Your task to perform on an android device: Search for Mexican restaurants on Maps Image 0: 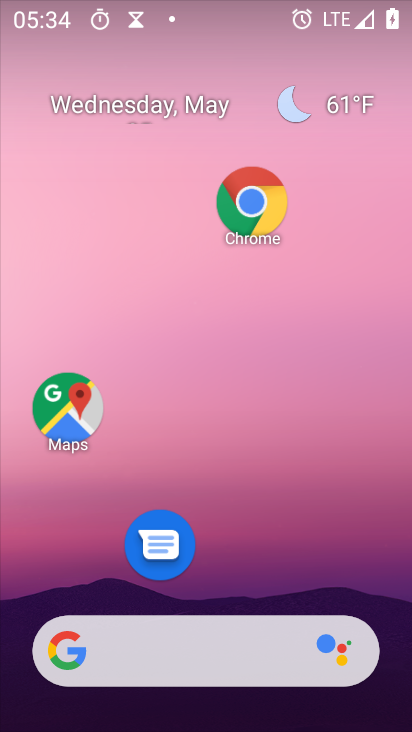
Step 0: click (73, 415)
Your task to perform on an android device: Search for Mexican restaurants on Maps Image 1: 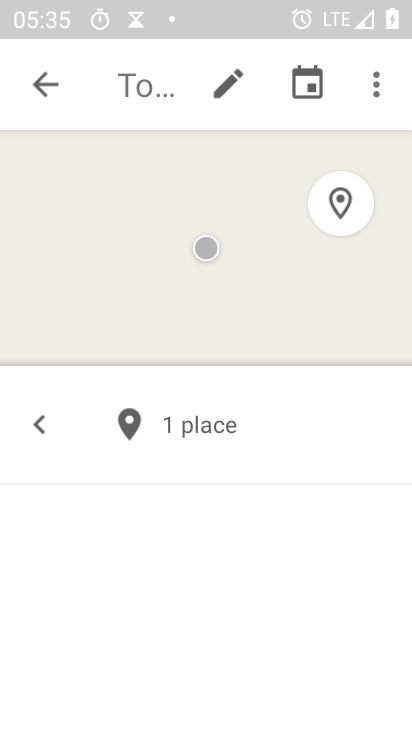
Step 1: click (52, 82)
Your task to perform on an android device: Search for Mexican restaurants on Maps Image 2: 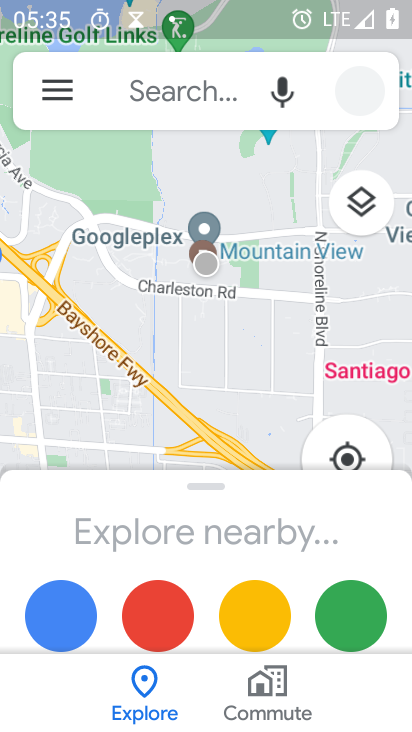
Step 2: click (164, 100)
Your task to perform on an android device: Search for Mexican restaurants on Maps Image 3: 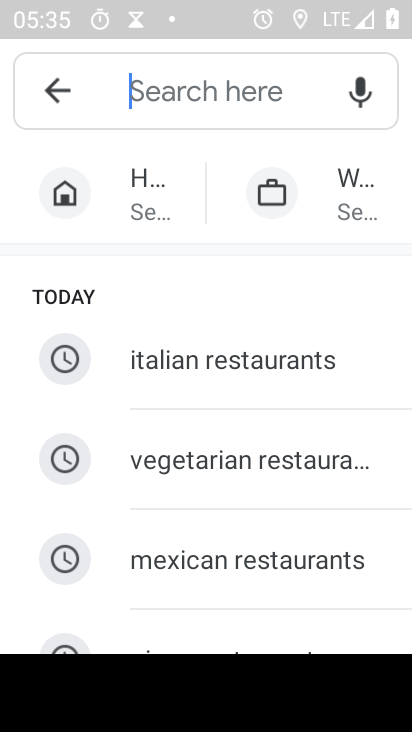
Step 3: type "mexican restaurants"
Your task to perform on an android device: Search for Mexican restaurants on Maps Image 4: 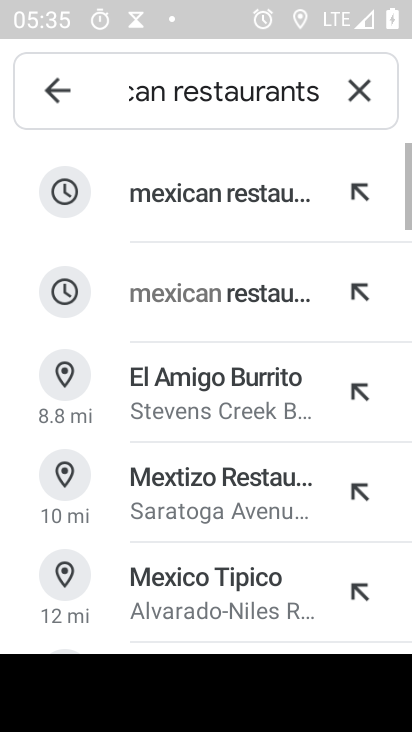
Step 4: click (220, 220)
Your task to perform on an android device: Search for Mexican restaurants on Maps Image 5: 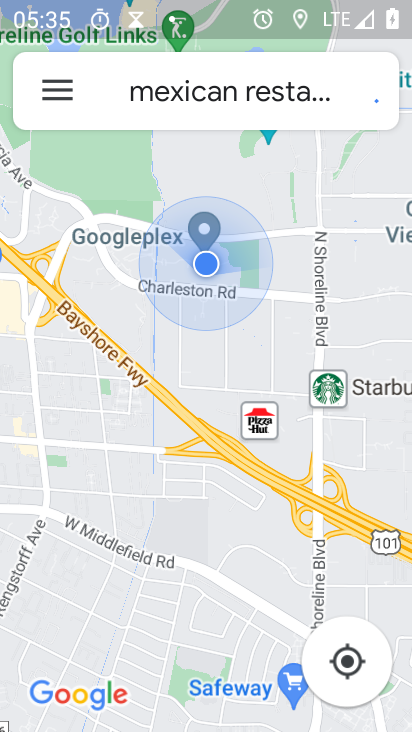
Step 5: task complete